Your task to perform on an android device: turn on bluetooth scan Image 0: 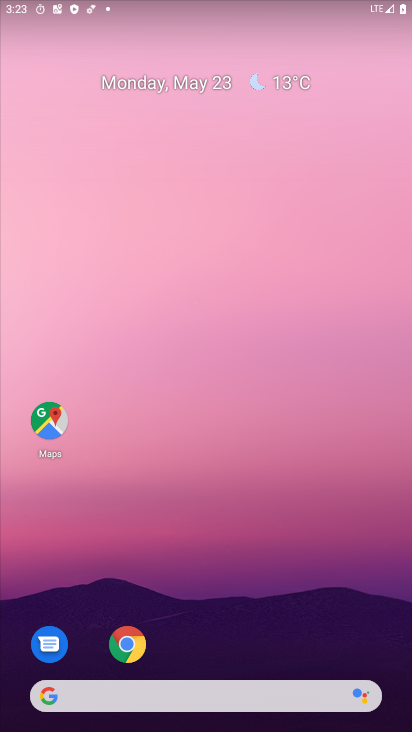
Step 0: drag from (187, 668) to (145, 73)
Your task to perform on an android device: turn on bluetooth scan Image 1: 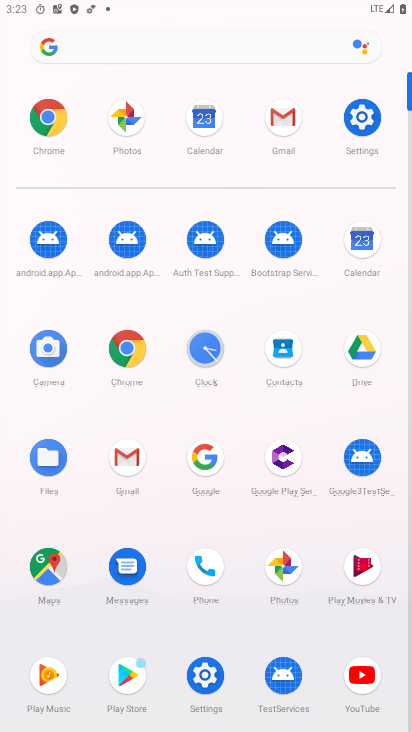
Step 1: click (348, 126)
Your task to perform on an android device: turn on bluetooth scan Image 2: 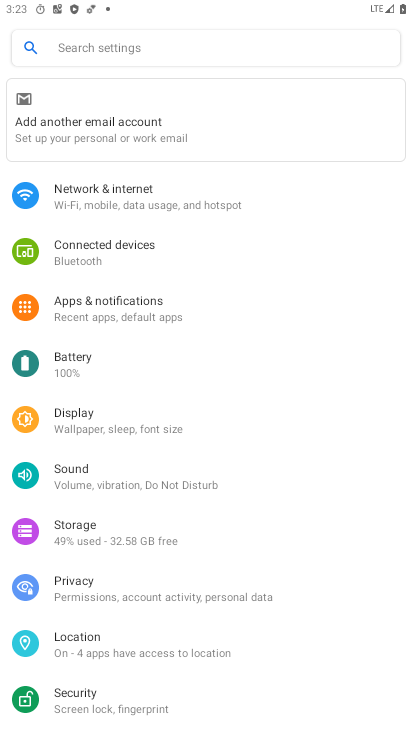
Step 2: drag from (150, 558) to (140, 299)
Your task to perform on an android device: turn on bluetooth scan Image 3: 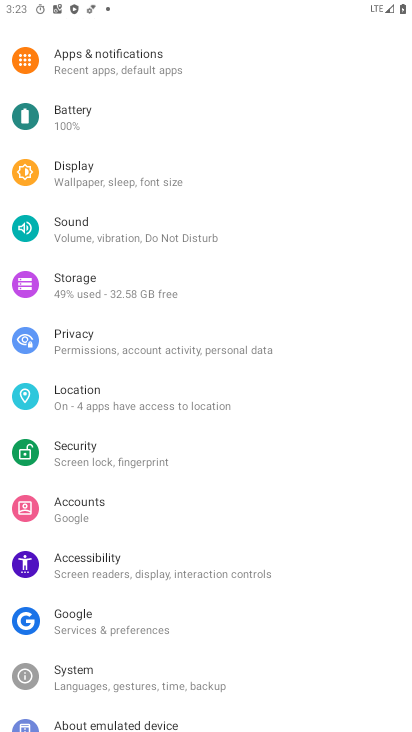
Step 3: click (86, 383)
Your task to perform on an android device: turn on bluetooth scan Image 4: 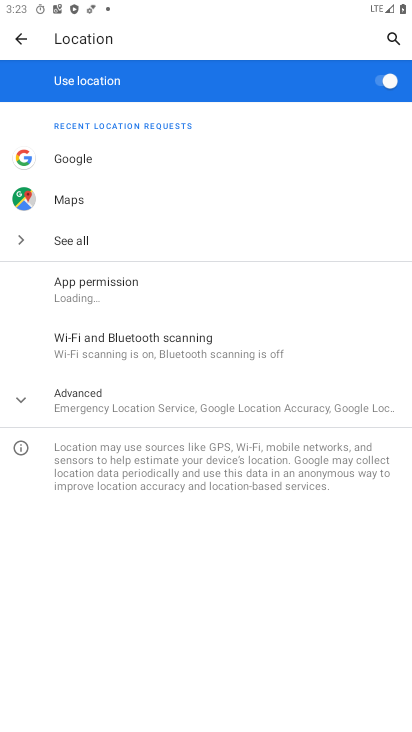
Step 4: click (141, 357)
Your task to perform on an android device: turn on bluetooth scan Image 5: 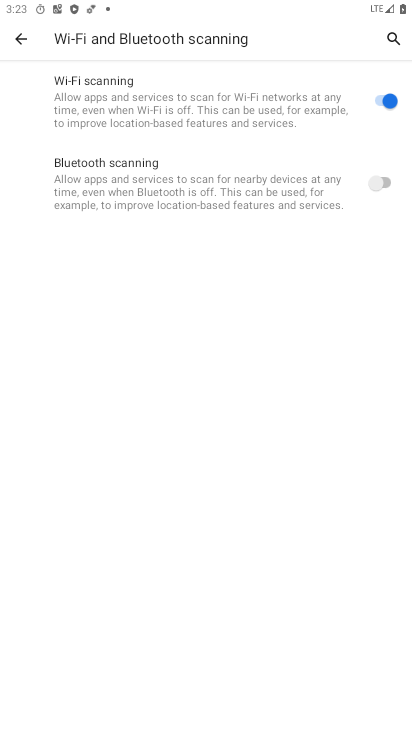
Step 5: click (374, 188)
Your task to perform on an android device: turn on bluetooth scan Image 6: 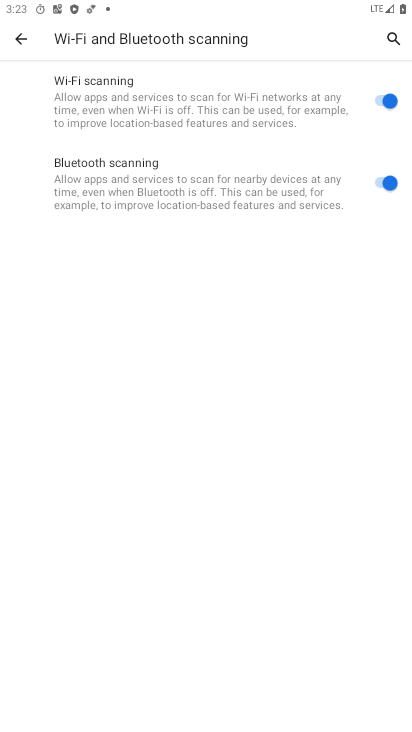
Step 6: task complete